Your task to perform on an android device: choose inbox layout in the gmail app Image 0: 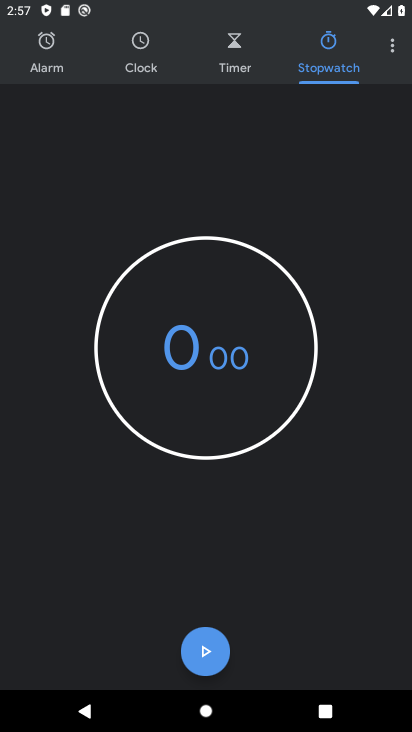
Step 0: press home button
Your task to perform on an android device: choose inbox layout in the gmail app Image 1: 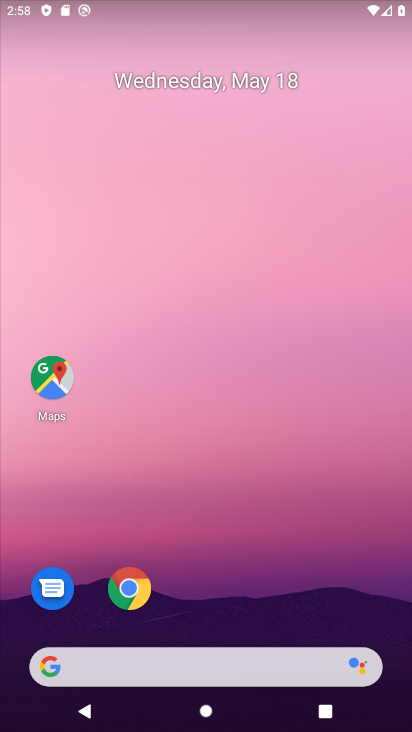
Step 1: drag from (257, 619) to (179, 108)
Your task to perform on an android device: choose inbox layout in the gmail app Image 2: 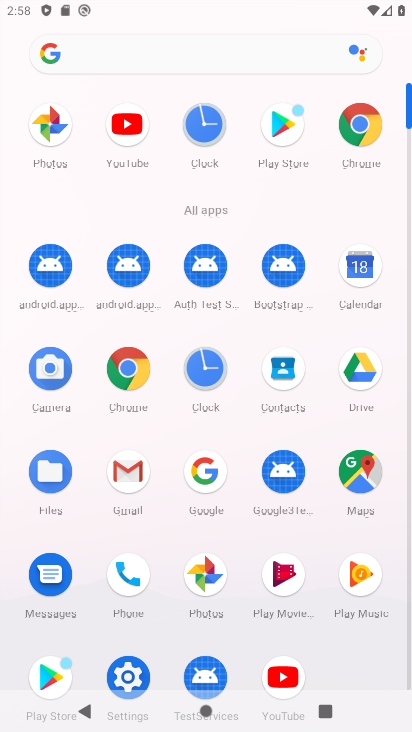
Step 2: click (124, 476)
Your task to perform on an android device: choose inbox layout in the gmail app Image 3: 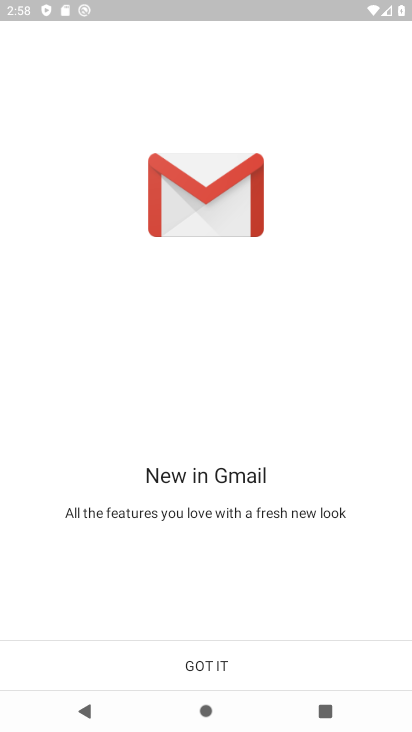
Step 3: click (261, 659)
Your task to perform on an android device: choose inbox layout in the gmail app Image 4: 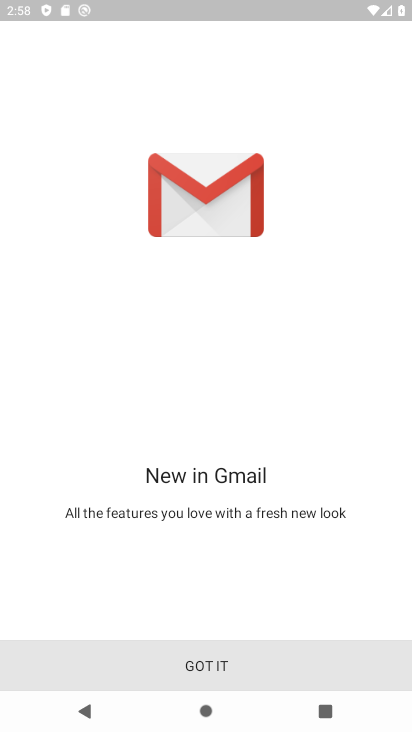
Step 4: click (267, 659)
Your task to perform on an android device: choose inbox layout in the gmail app Image 5: 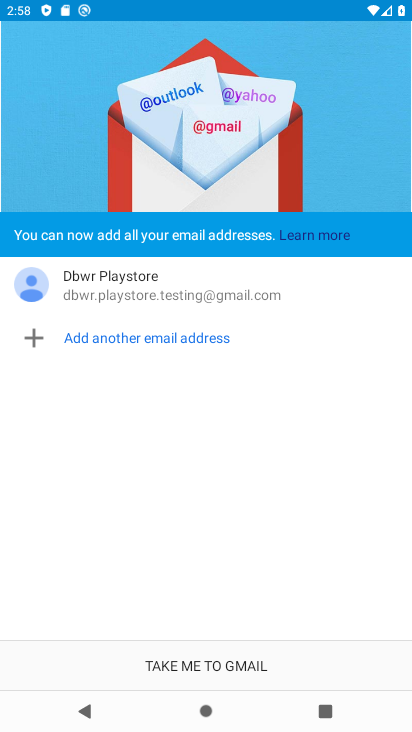
Step 5: click (267, 659)
Your task to perform on an android device: choose inbox layout in the gmail app Image 6: 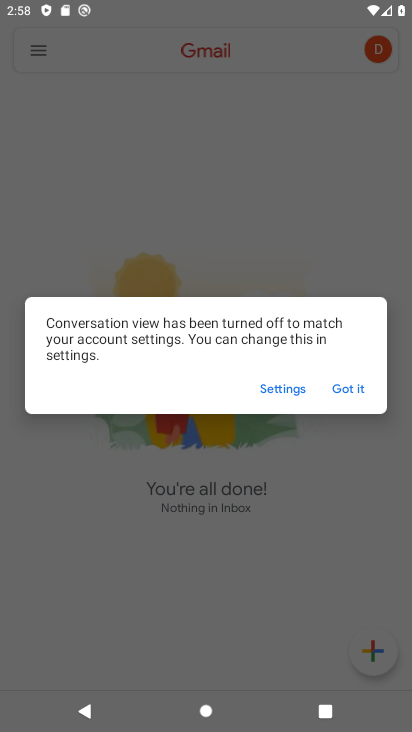
Step 6: click (346, 386)
Your task to perform on an android device: choose inbox layout in the gmail app Image 7: 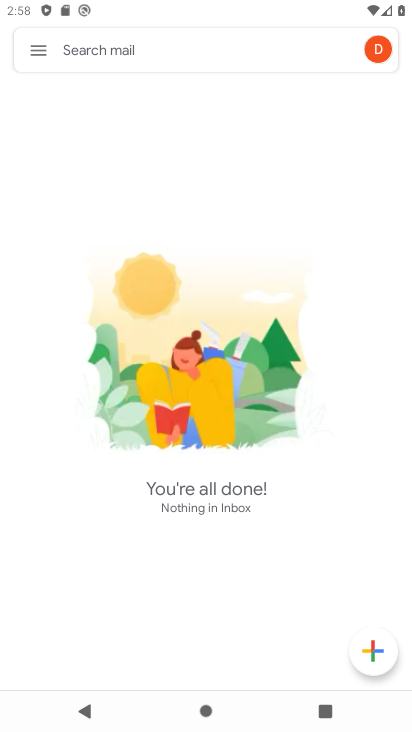
Step 7: click (44, 49)
Your task to perform on an android device: choose inbox layout in the gmail app Image 8: 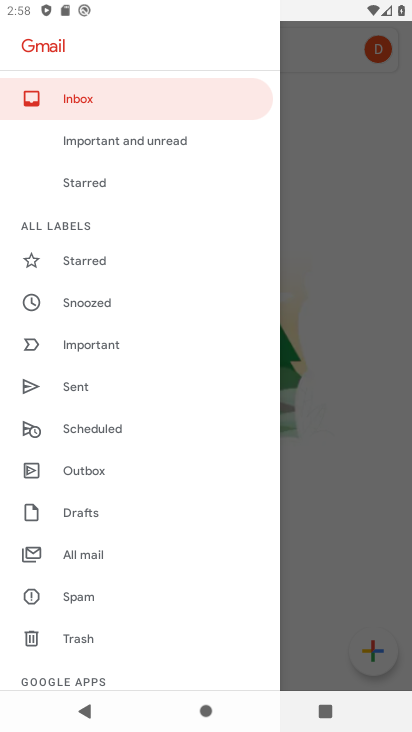
Step 8: drag from (84, 579) to (44, 327)
Your task to perform on an android device: choose inbox layout in the gmail app Image 9: 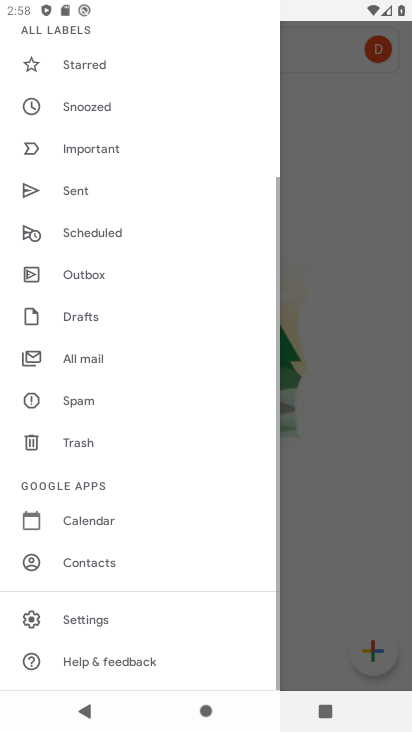
Step 9: click (67, 630)
Your task to perform on an android device: choose inbox layout in the gmail app Image 10: 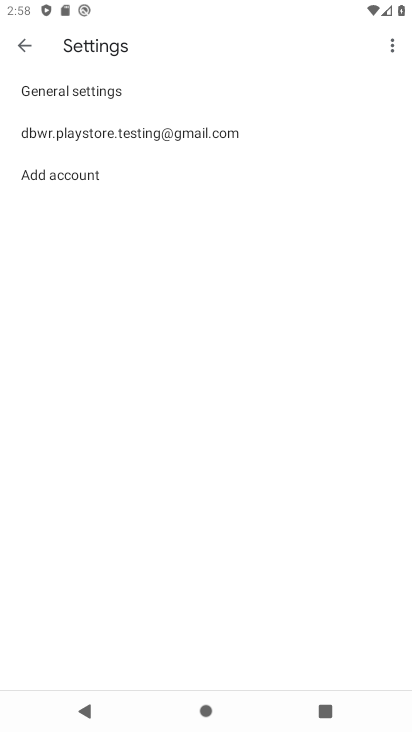
Step 10: click (189, 133)
Your task to perform on an android device: choose inbox layout in the gmail app Image 11: 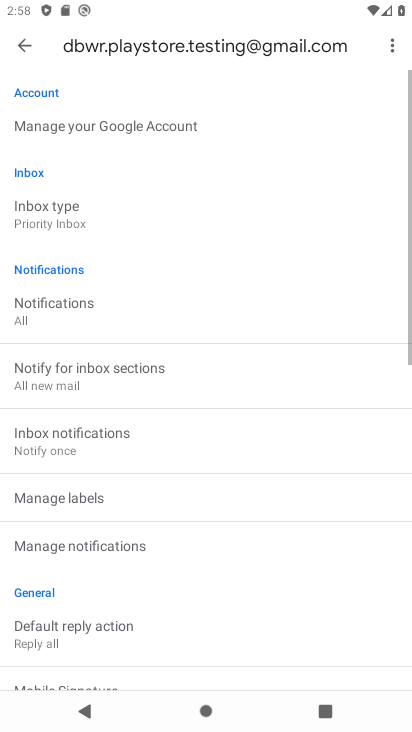
Step 11: click (92, 214)
Your task to perform on an android device: choose inbox layout in the gmail app Image 12: 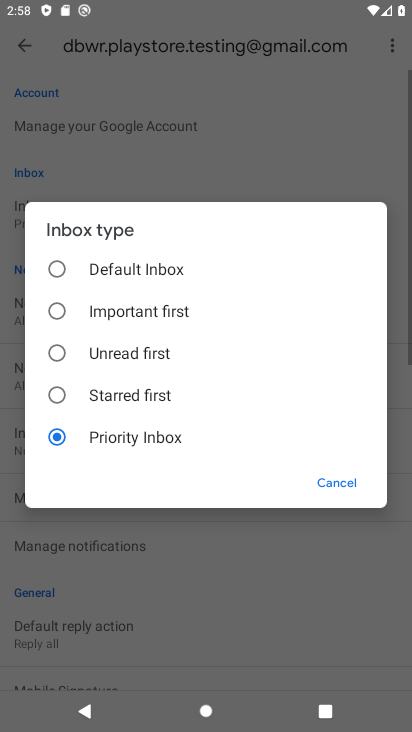
Step 12: click (86, 370)
Your task to perform on an android device: choose inbox layout in the gmail app Image 13: 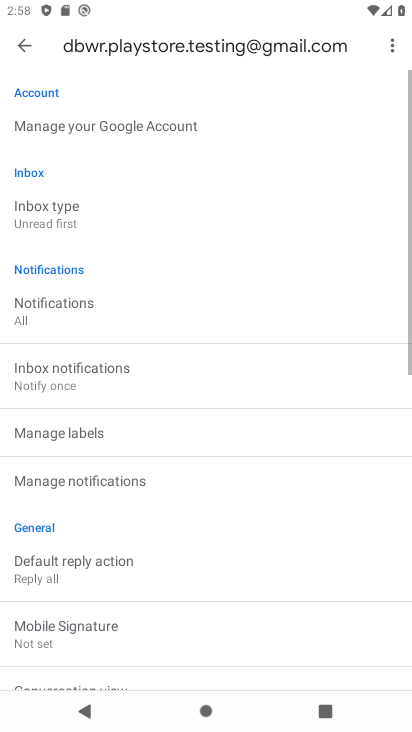
Step 13: task complete